Your task to perform on an android device: Open the map Image 0: 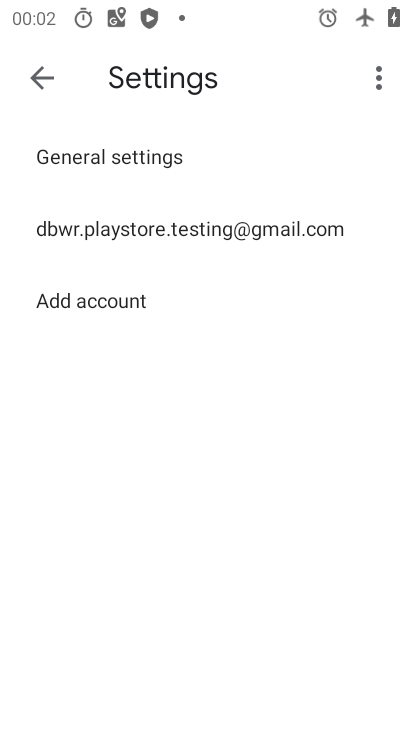
Step 0: drag from (362, 527) to (263, 7)
Your task to perform on an android device: Open the map Image 1: 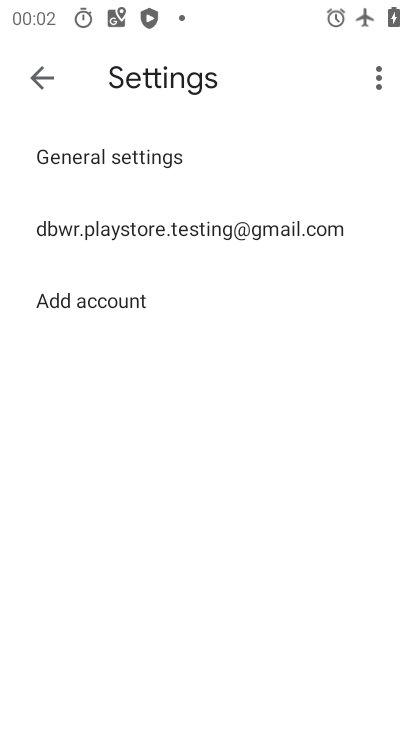
Step 1: press home button
Your task to perform on an android device: Open the map Image 2: 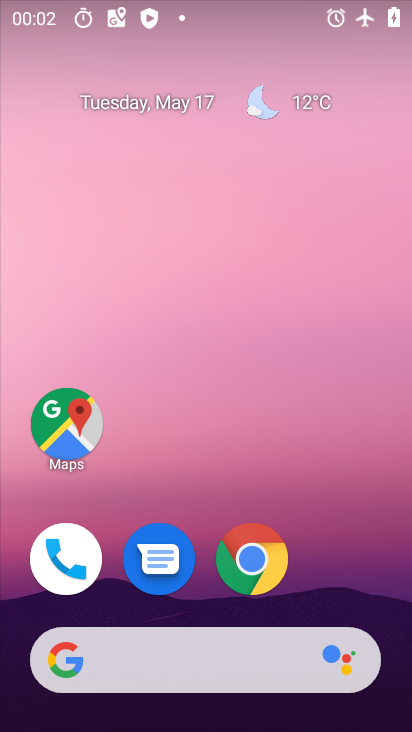
Step 2: click (70, 424)
Your task to perform on an android device: Open the map Image 3: 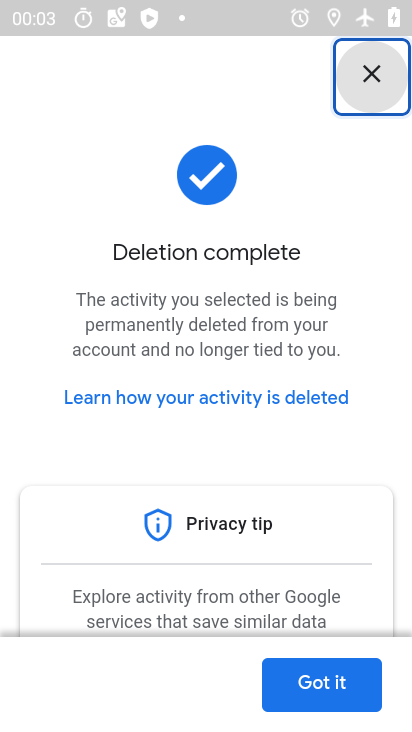
Step 3: click (337, 695)
Your task to perform on an android device: Open the map Image 4: 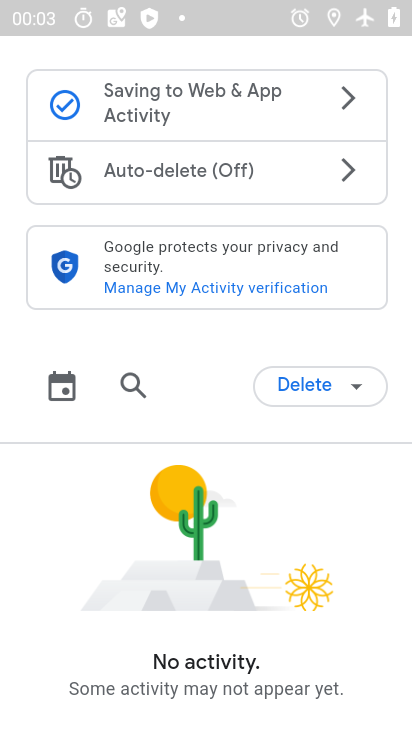
Step 4: task complete